Your task to perform on an android device: What's the weather today? Image 0: 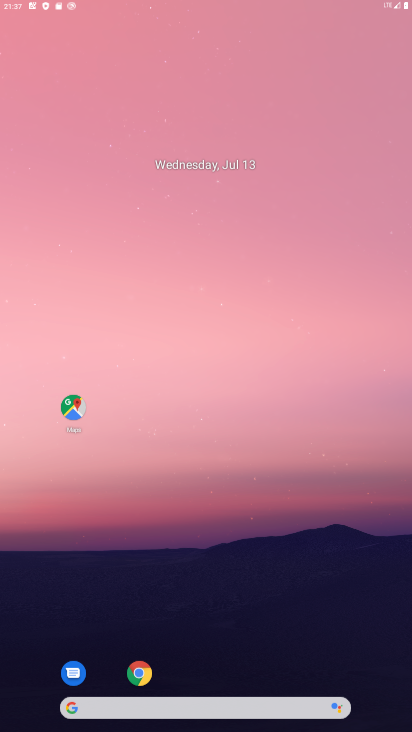
Step 0: click (253, 110)
Your task to perform on an android device: What's the weather today? Image 1: 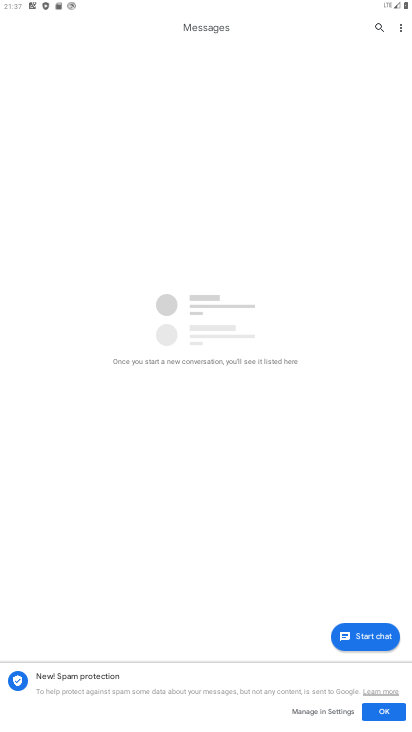
Step 1: drag from (255, 510) to (333, 96)
Your task to perform on an android device: What's the weather today? Image 2: 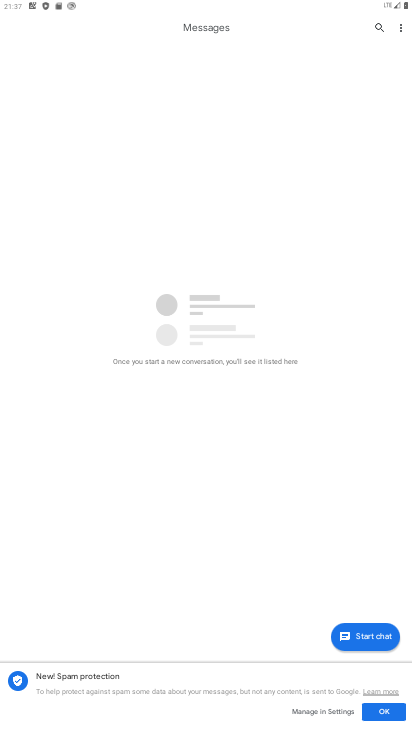
Step 2: press home button
Your task to perform on an android device: What's the weather today? Image 3: 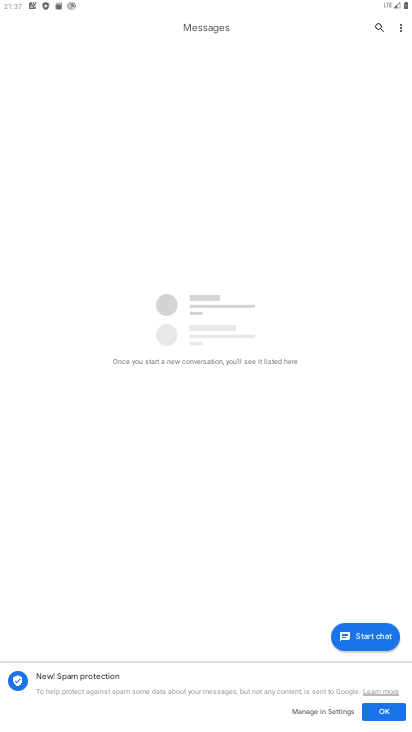
Step 3: press home button
Your task to perform on an android device: What's the weather today? Image 4: 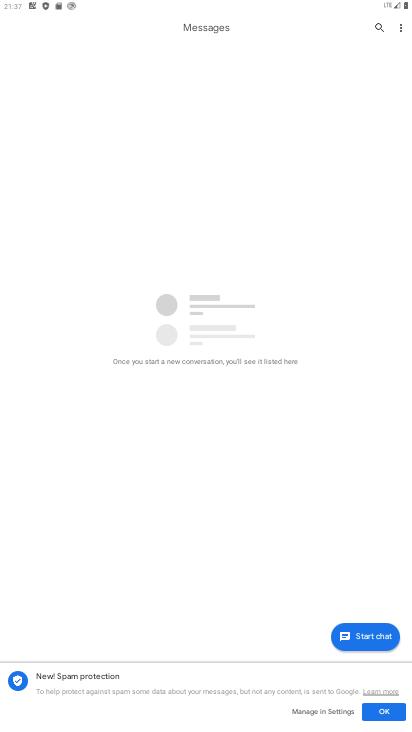
Step 4: drag from (182, 599) to (262, 332)
Your task to perform on an android device: What's the weather today? Image 5: 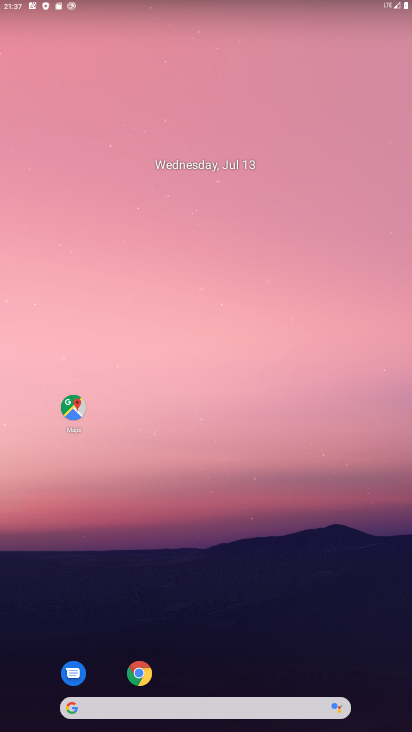
Step 5: drag from (185, 657) to (272, 75)
Your task to perform on an android device: What's the weather today? Image 6: 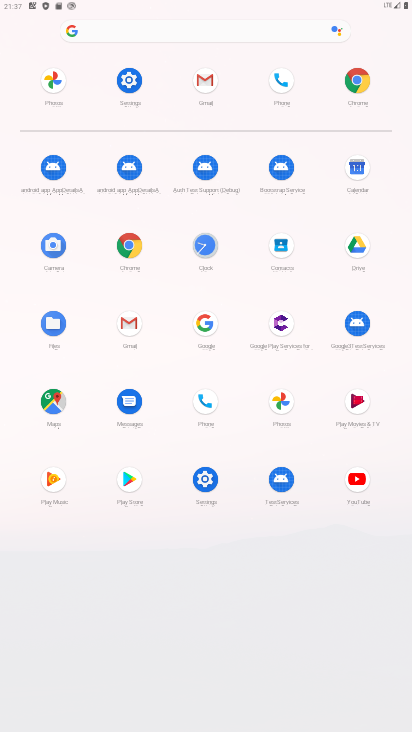
Step 6: click (143, 37)
Your task to perform on an android device: What's the weather today? Image 7: 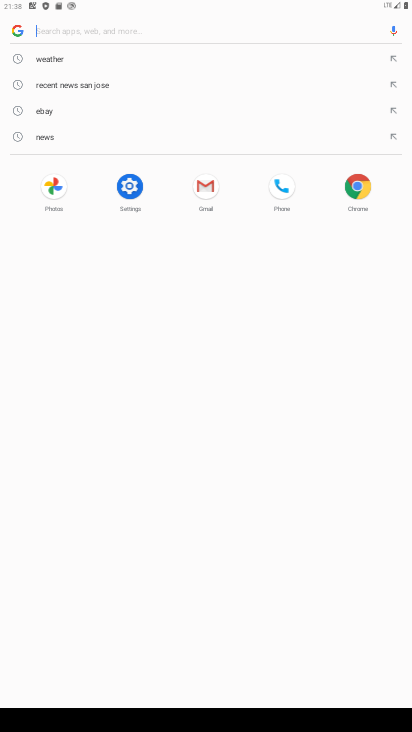
Step 7: type ""
Your task to perform on an android device: What's the weather today? Image 8: 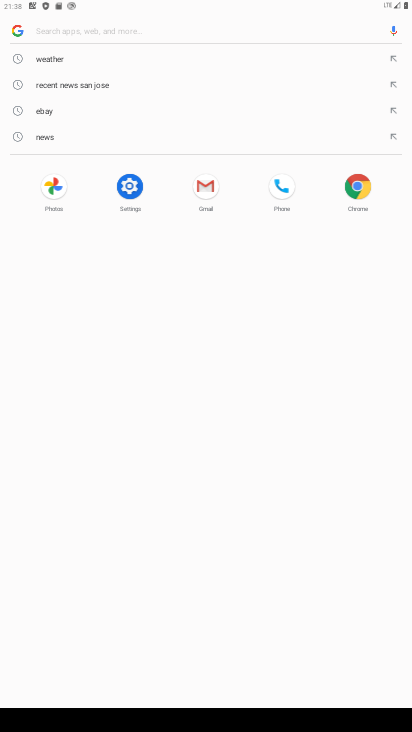
Step 8: type "weather"
Your task to perform on an android device: What's the weather today? Image 9: 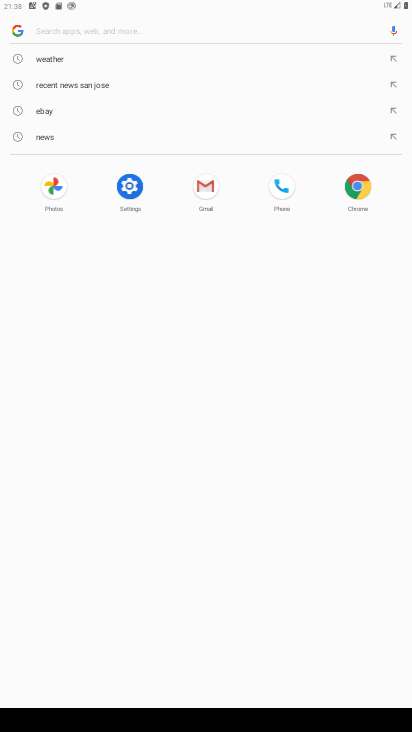
Step 9: click (55, 56)
Your task to perform on an android device: What's the weather today? Image 10: 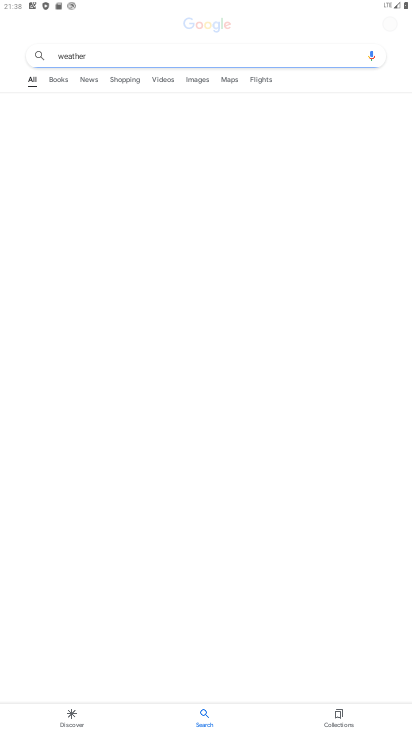
Step 10: task complete